Your task to perform on an android device: Go to Yahoo.com Image 0: 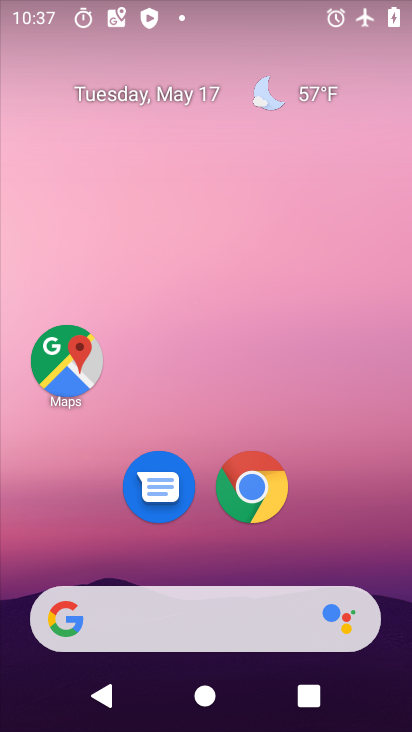
Step 0: click (255, 494)
Your task to perform on an android device: Go to Yahoo.com Image 1: 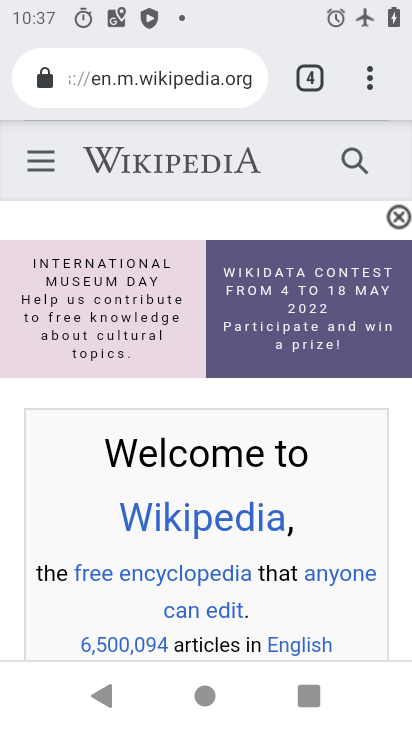
Step 1: click (371, 86)
Your task to perform on an android device: Go to Yahoo.com Image 2: 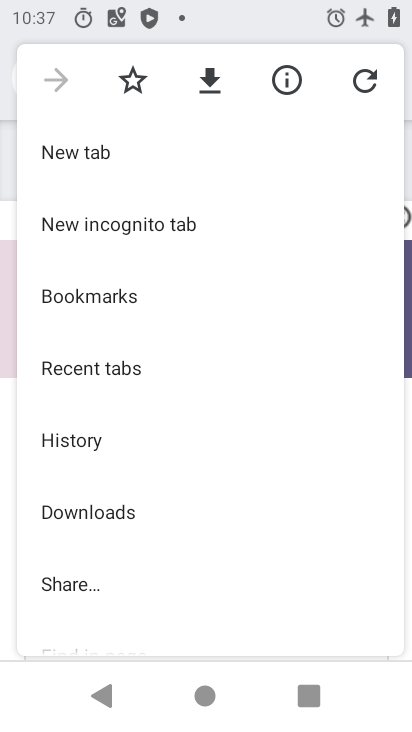
Step 2: click (86, 150)
Your task to perform on an android device: Go to Yahoo.com Image 3: 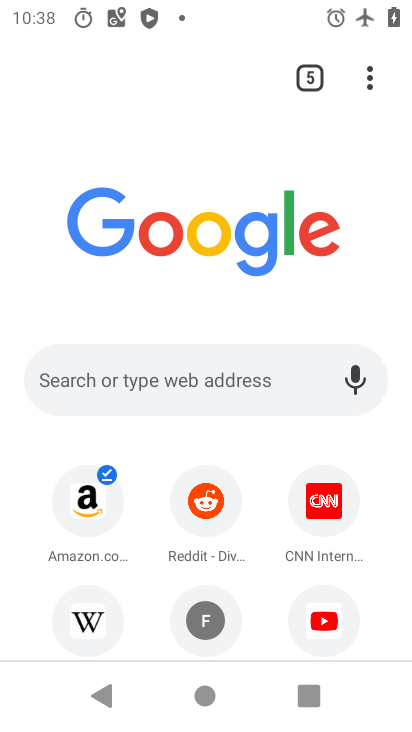
Step 3: click (255, 382)
Your task to perform on an android device: Go to Yahoo.com Image 4: 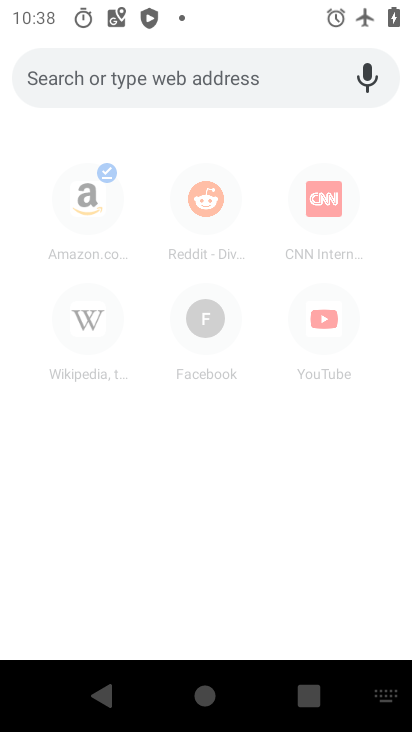
Step 4: type "Yahoo.com"
Your task to perform on an android device: Go to Yahoo.com Image 5: 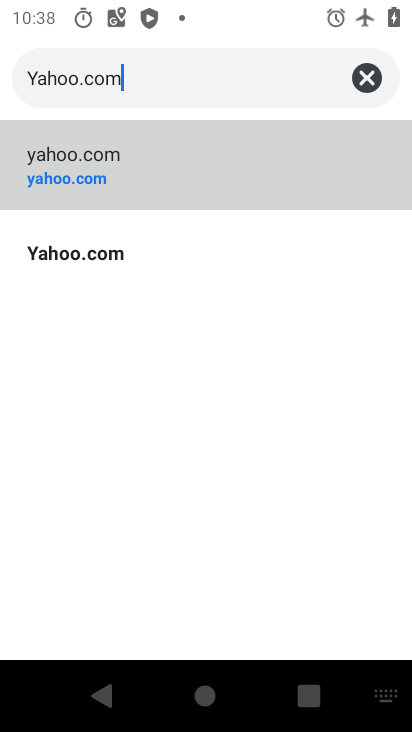
Step 5: click (63, 173)
Your task to perform on an android device: Go to Yahoo.com Image 6: 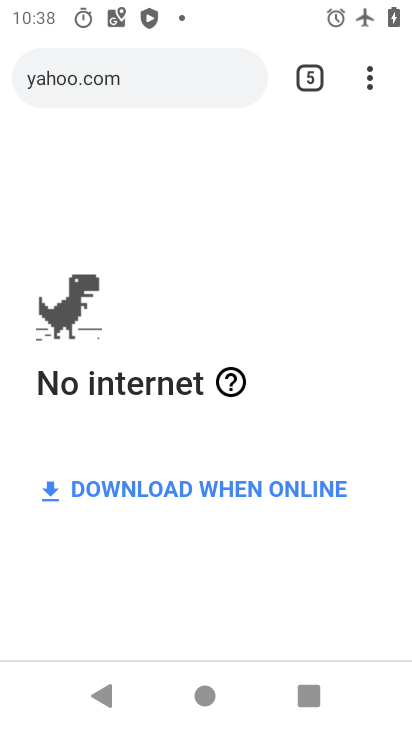
Step 6: task complete